Your task to perform on an android device: turn on wifi Image 0: 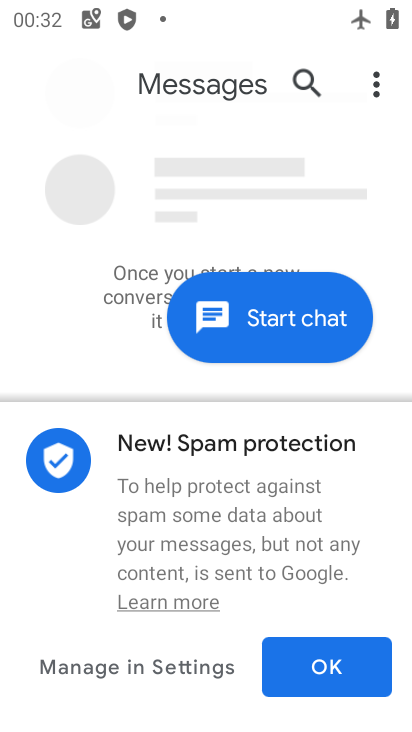
Step 0: press home button
Your task to perform on an android device: turn on wifi Image 1: 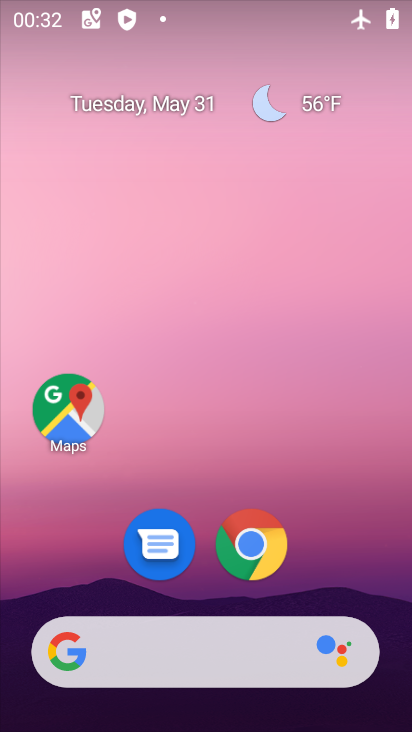
Step 1: drag from (362, 539) to (240, 88)
Your task to perform on an android device: turn on wifi Image 2: 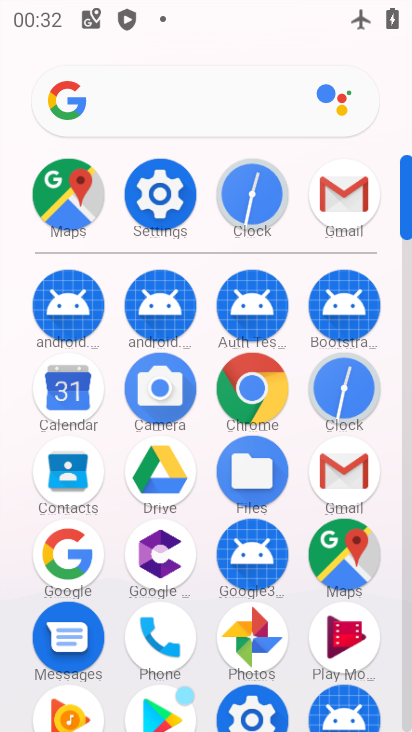
Step 2: click (159, 191)
Your task to perform on an android device: turn on wifi Image 3: 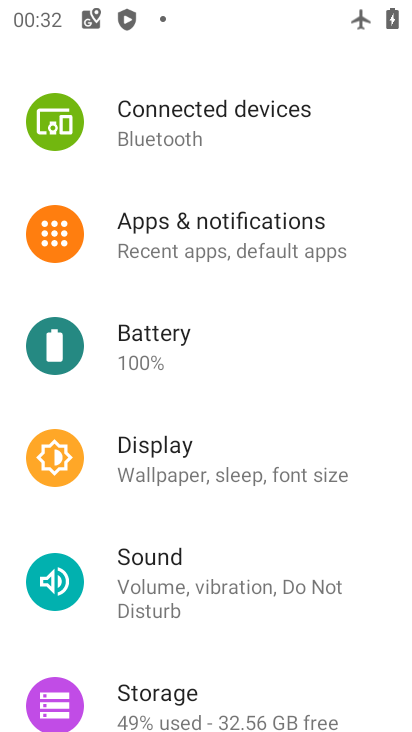
Step 3: drag from (256, 325) to (251, 634)
Your task to perform on an android device: turn on wifi Image 4: 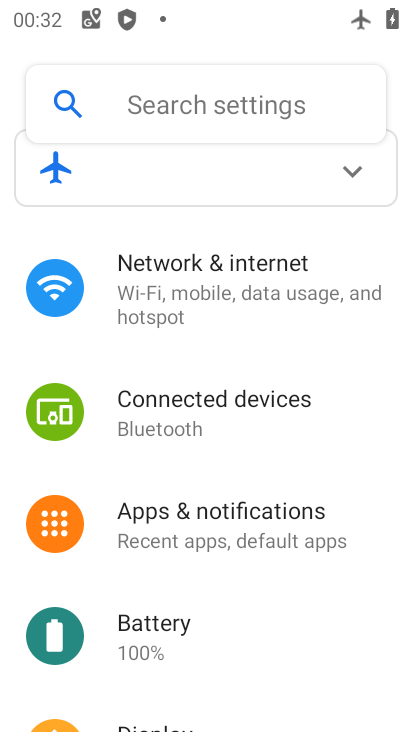
Step 4: click (174, 269)
Your task to perform on an android device: turn on wifi Image 5: 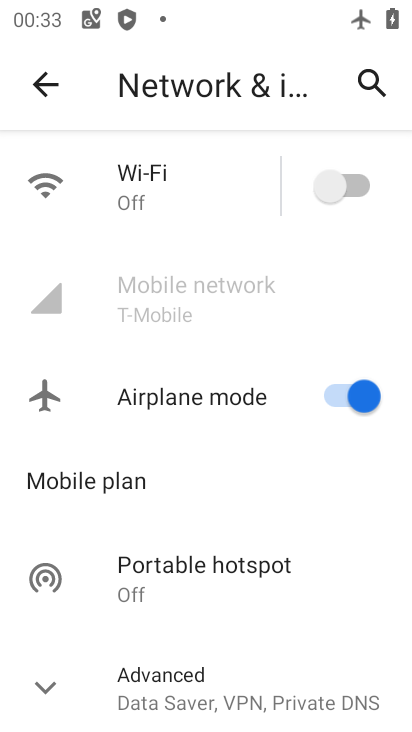
Step 5: click (354, 179)
Your task to perform on an android device: turn on wifi Image 6: 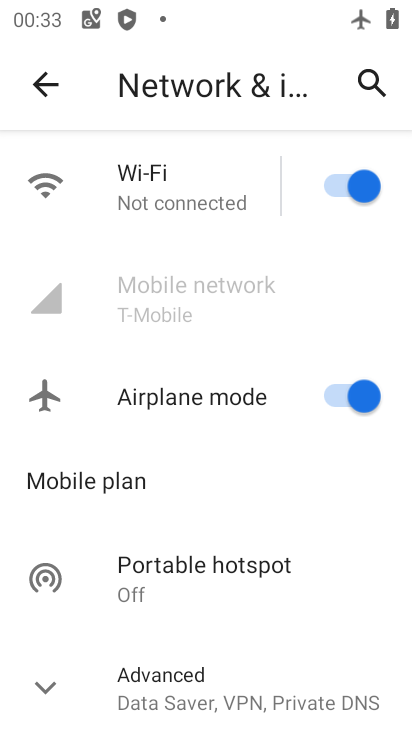
Step 6: task complete